Your task to perform on an android device: open wifi settings Image 0: 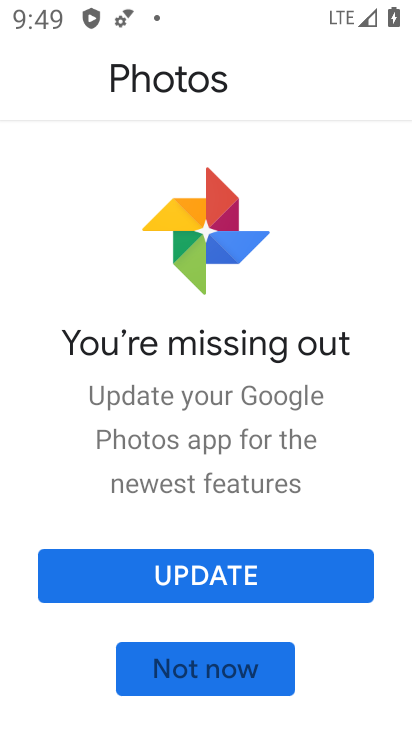
Step 0: press home button
Your task to perform on an android device: open wifi settings Image 1: 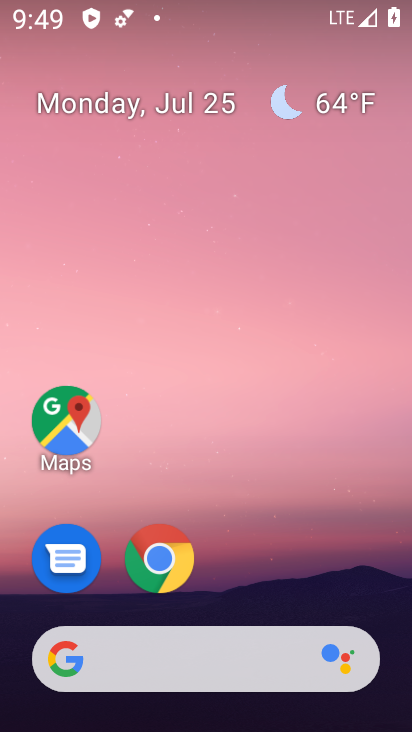
Step 1: drag from (359, 559) to (361, 93)
Your task to perform on an android device: open wifi settings Image 2: 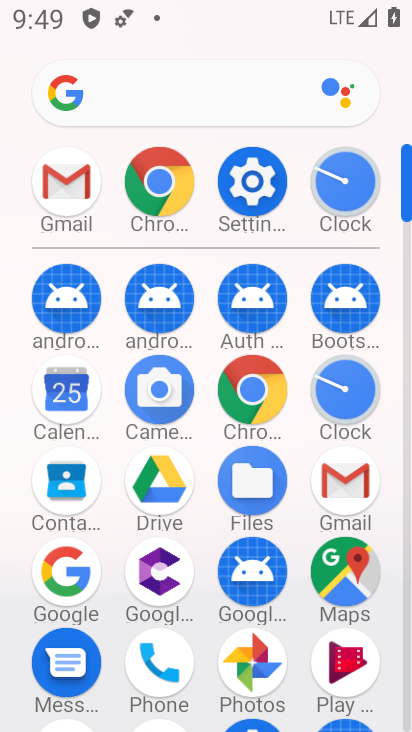
Step 2: click (258, 196)
Your task to perform on an android device: open wifi settings Image 3: 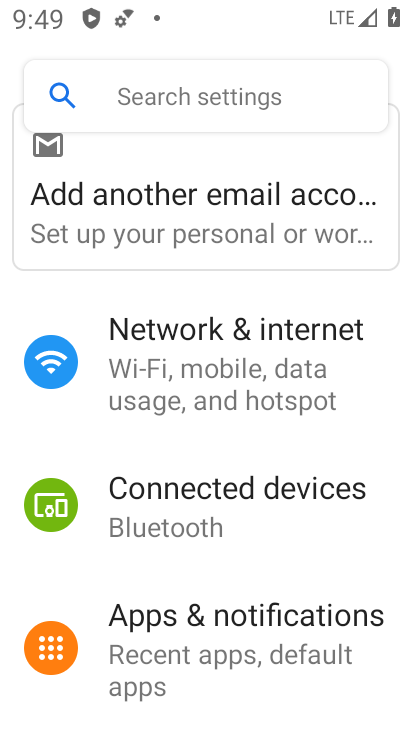
Step 3: drag from (378, 463) to (379, 354)
Your task to perform on an android device: open wifi settings Image 4: 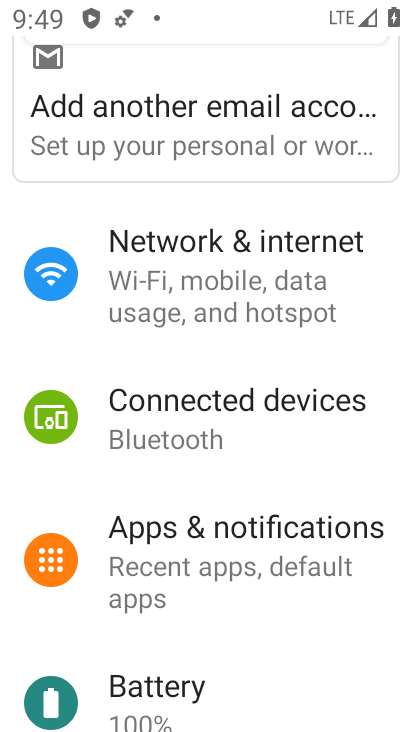
Step 4: drag from (367, 468) to (370, 373)
Your task to perform on an android device: open wifi settings Image 5: 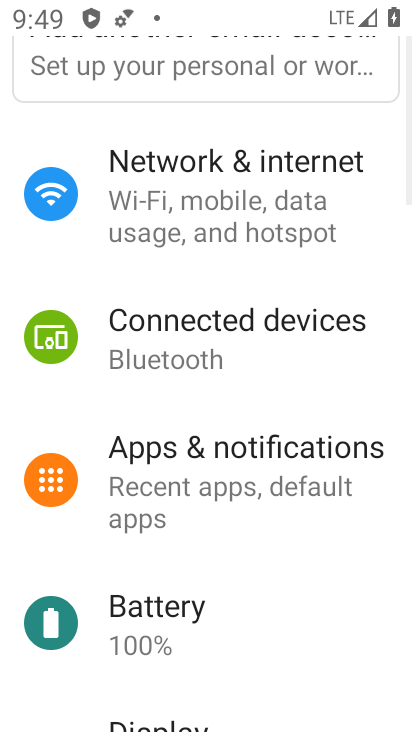
Step 5: drag from (346, 468) to (331, 344)
Your task to perform on an android device: open wifi settings Image 6: 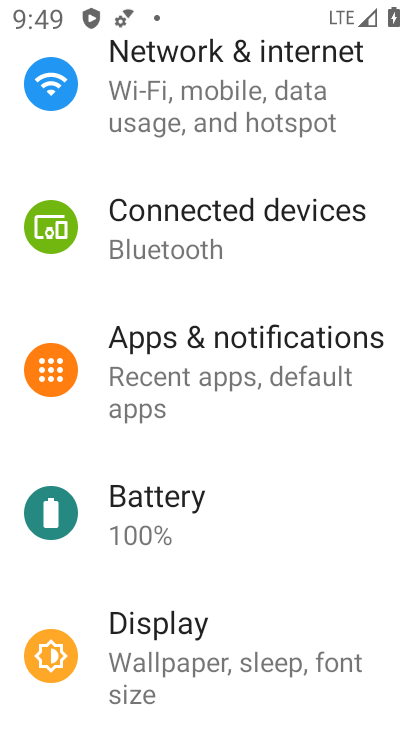
Step 6: drag from (307, 481) to (289, 353)
Your task to perform on an android device: open wifi settings Image 7: 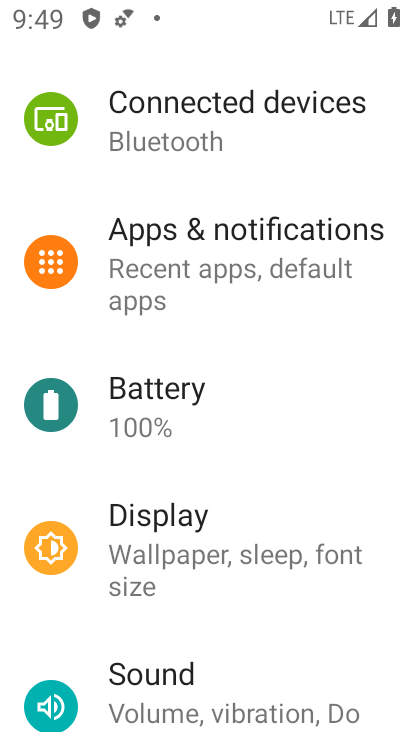
Step 7: drag from (319, 454) to (324, 362)
Your task to perform on an android device: open wifi settings Image 8: 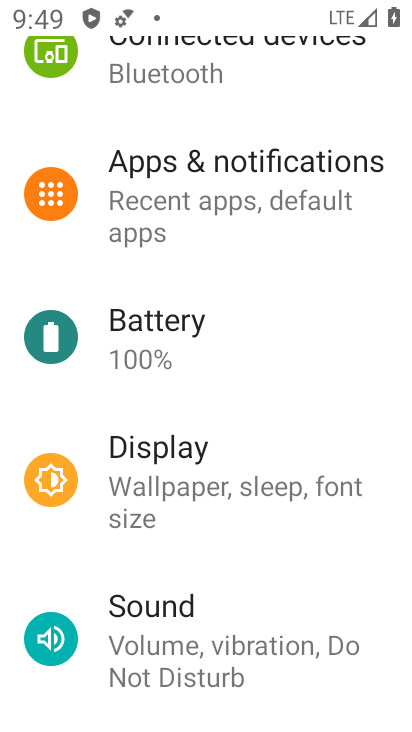
Step 8: drag from (335, 437) to (338, 320)
Your task to perform on an android device: open wifi settings Image 9: 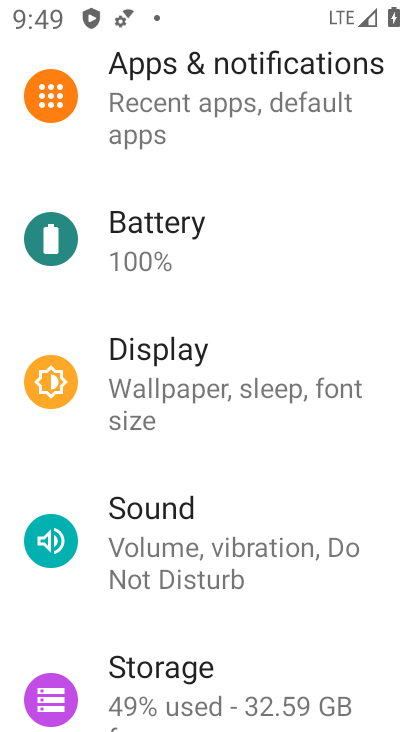
Step 9: drag from (359, 264) to (361, 374)
Your task to perform on an android device: open wifi settings Image 10: 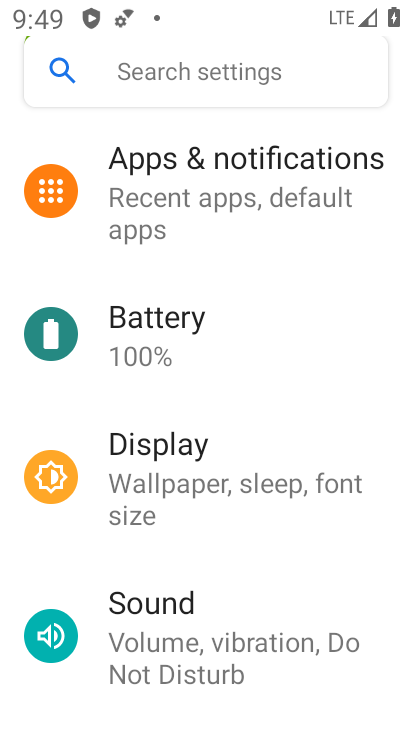
Step 10: drag from (363, 248) to (366, 353)
Your task to perform on an android device: open wifi settings Image 11: 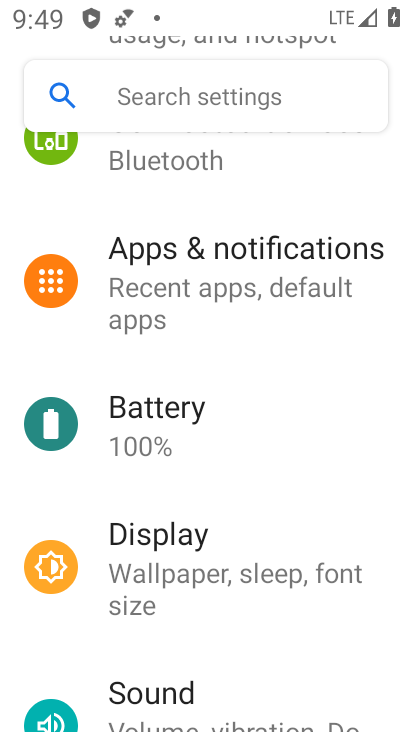
Step 11: drag from (364, 185) to (374, 324)
Your task to perform on an android device: open wifi settings Image 12: 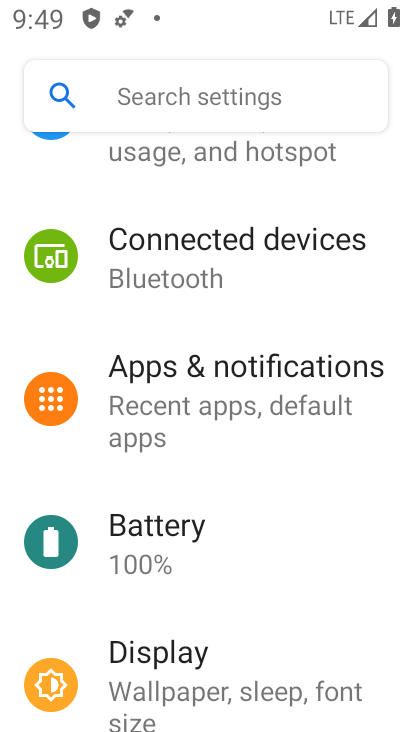
Step 12: drag from (376, 185) to (380, 472)
Your task to perform on an android device: open wifi settings Image 13: 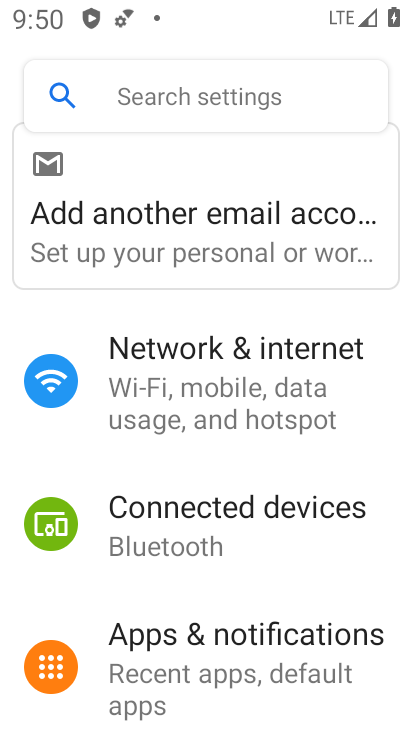
Step 13: drag from (365, 304) to (372, 439)
Your task to perform on an android device: open wifi settings Image 14: 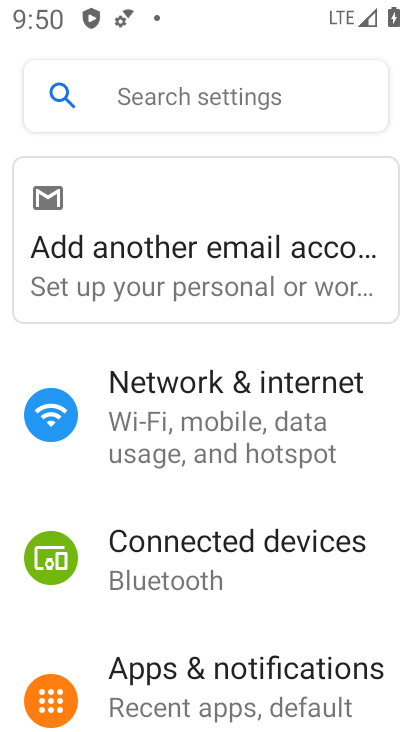
Step 14: click (267, 429)
Your task to perform on an android device: open wifi settings Image 15: 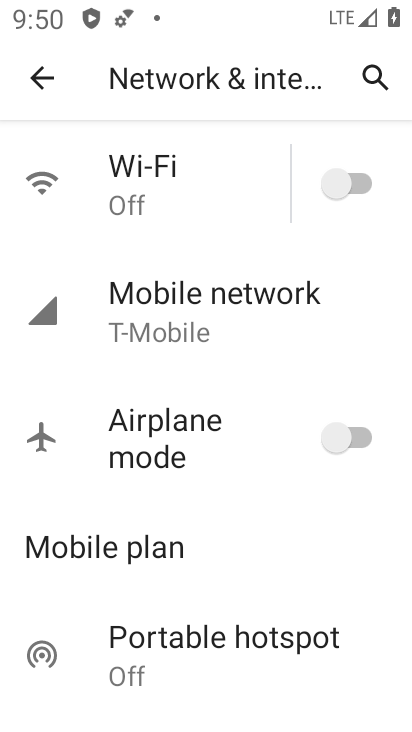
Step 15: click (185, 185)
Your task to perform on an android device: open wifi settings Image 16: 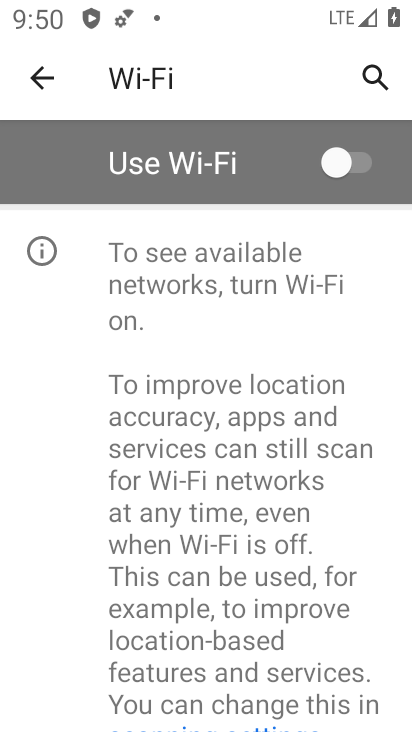
Step 16: task complete